Your task to perform on an android device: Open Android settings Image 0: 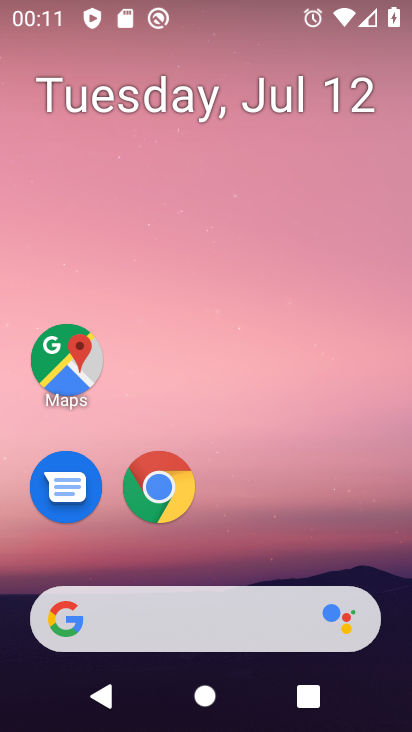
Step 0: drag from (374, 527) to (400, 131)
Your task to perform on an android device: Open Android settings Image 1: 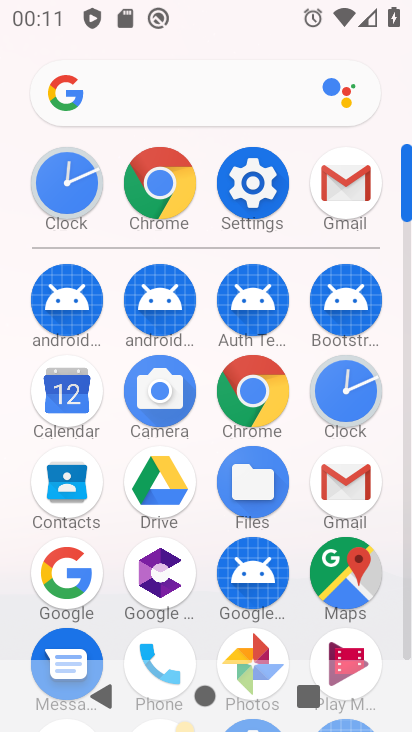
Step 1: click (263, 196)
Your task to perform on an android device: Open Android settings Image 2: 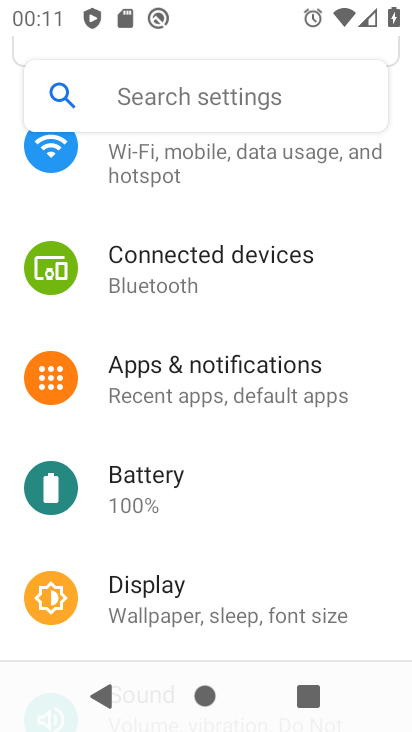
Step 2: drag from (376, 517) to (368, 416)
Your task to perform on an android device: Open Android settings Image 3: 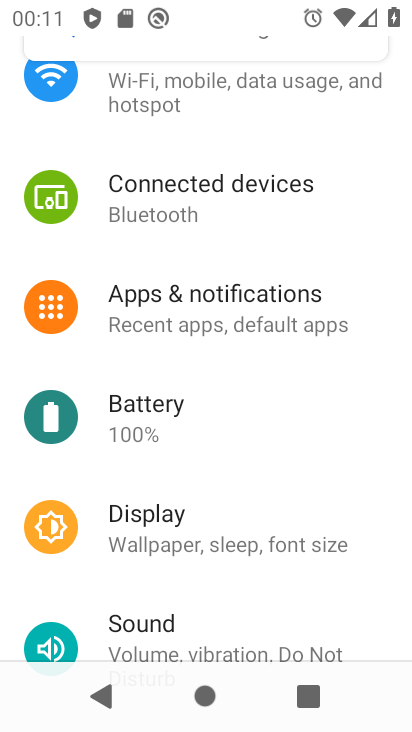
Step 3: drag from (377, 490) to (363, 413)
Your task to perform on an android device: Open Android settings Image 4: 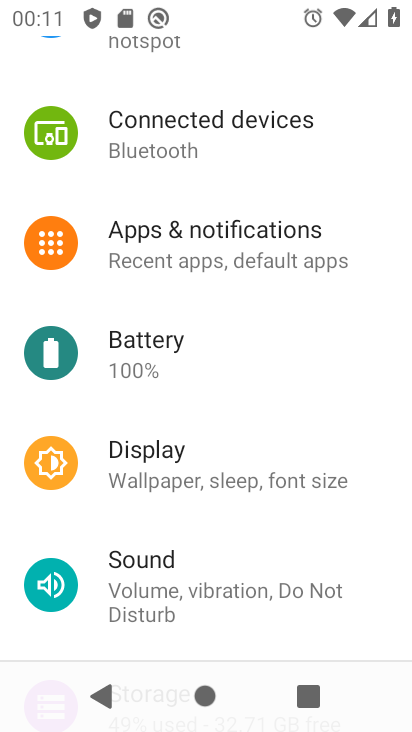
Step 4: drag from (380, 505) to (378, 439)
Your task to perform on an android device: Open Android settings Image 5: 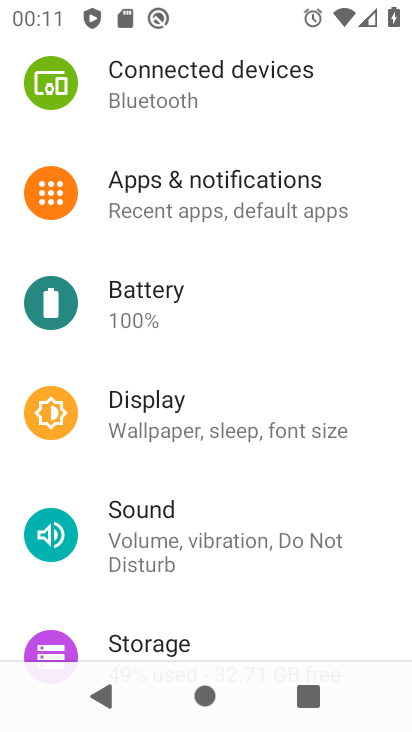
Step 5: drag from (382, 503) to (377, 423)
Your task to perform on an android device: Open Android settings Image 6: 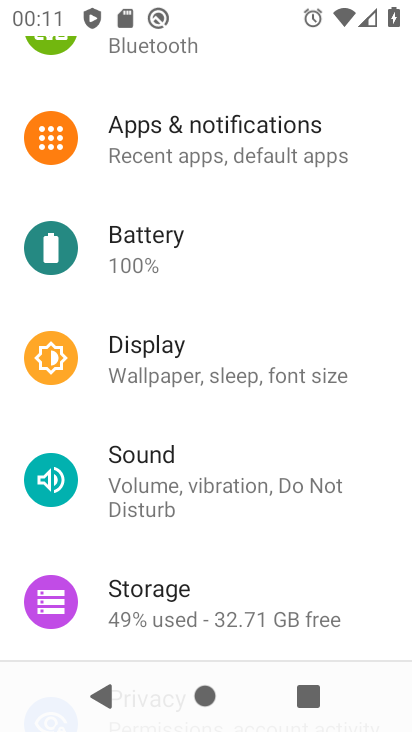
Step 6: drag from (363, 574) to (369, 494)
Your task to perform on an android device: Open Android settings Image 7: 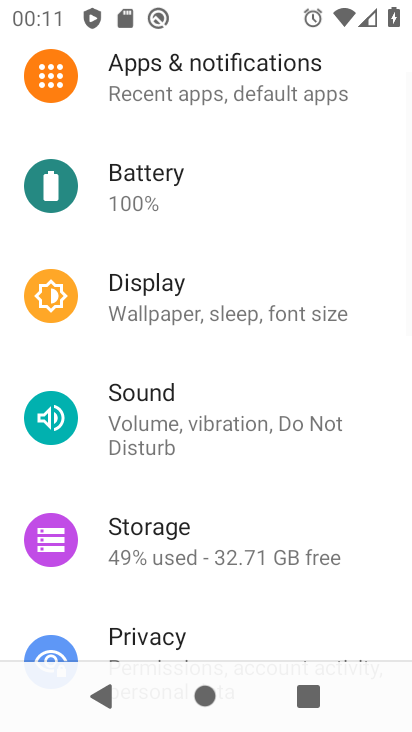
Step 7: drag from (369, 564) to (372, 386)
Your task to perform on an android device: Open Android settings Image 8: 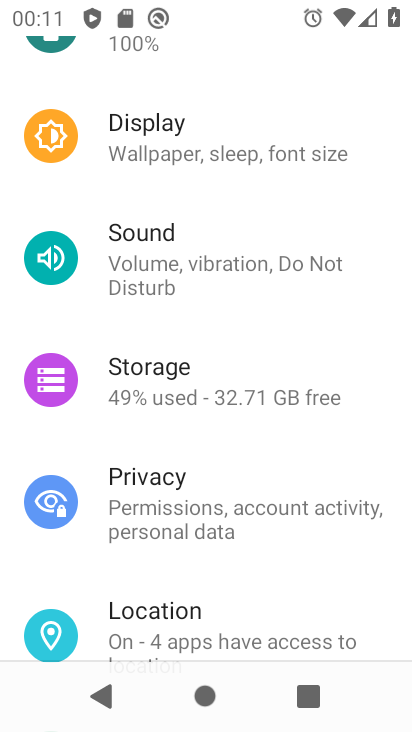
Step 8: drag from (379, 576) to (379, 456)
Your task to perform on an android device: Open Android settings Image 9: 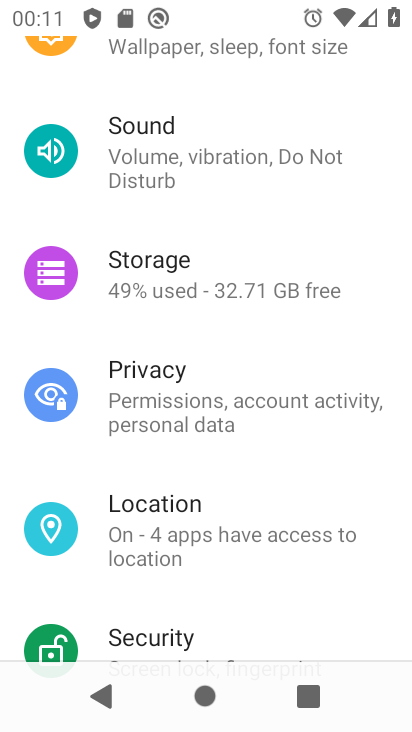
Step 9: drag from (383, 608) to (383, 499)
Your task to perform on an android device: Open Android settings Image 10: 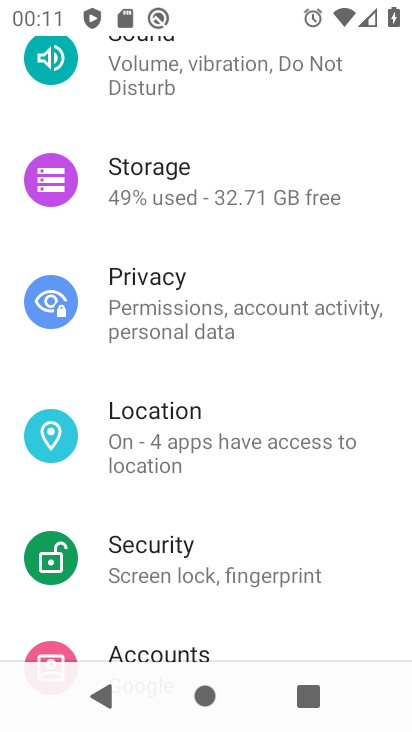
Step 10: drag from (369, 564) to (365, 425)
Your task to perform on an android device: Open Android settings Image 11: 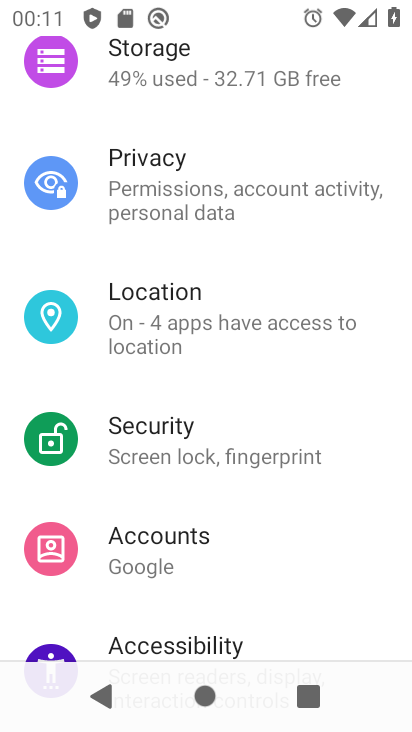
Step 11: drag from (352, 513) to (362, 350)
Your task to perform on an android device: Open Android settings Image 12: 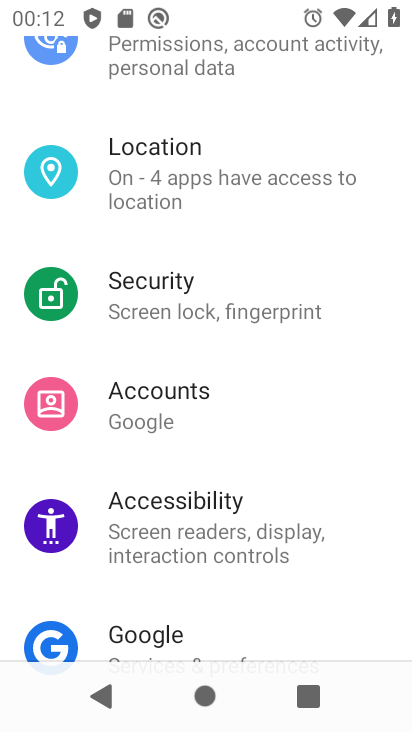
Step 12: drag from (365, 462) to (356, 393)
Your task to perform on an android device: Open Android settings Image 13: 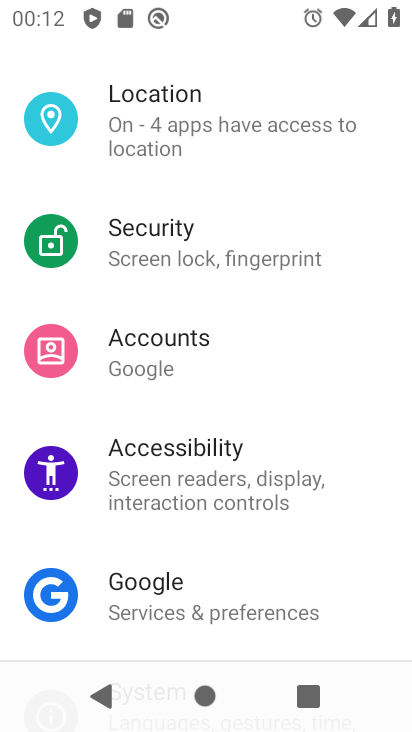
Step 13: drag from (379, 536) to (368, 427)
Your task to perform on an android device: Open Android settings Image 14: 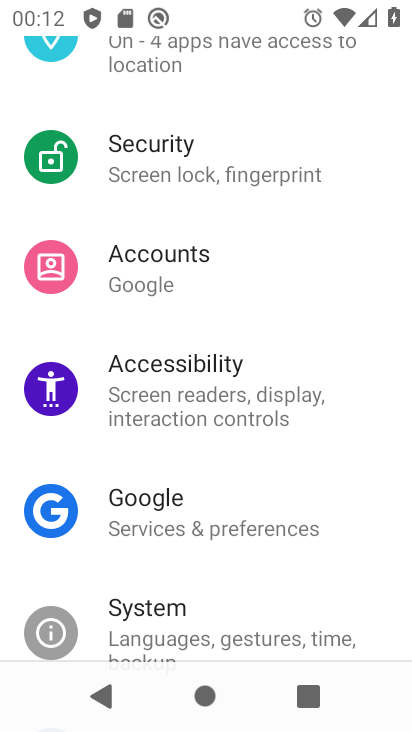
Step 14: drag from (369, 513) to (359, 391)
Your task to perform on an android device: Open Android settings Image 15: 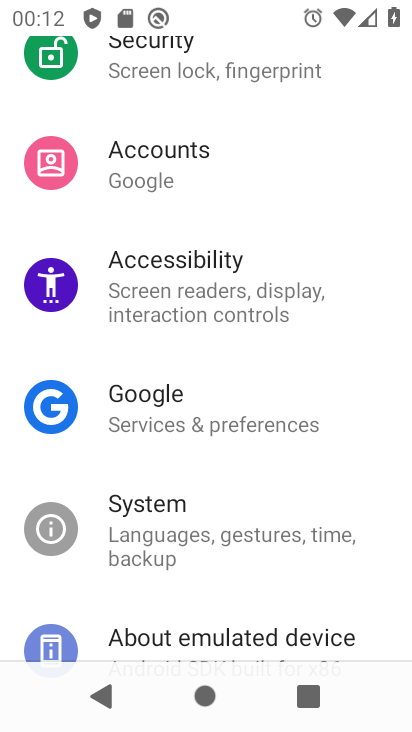
Step 15: drag from (354, 509) to (365, 343)
Your task to perform on an android device: Open Android settings Image 16: 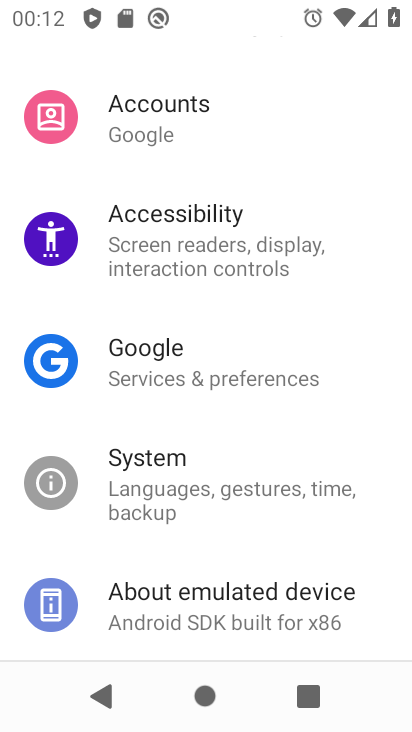
Step 16: click (275, 474)
Your task to perform on an android device: Open Android settings Image 17: 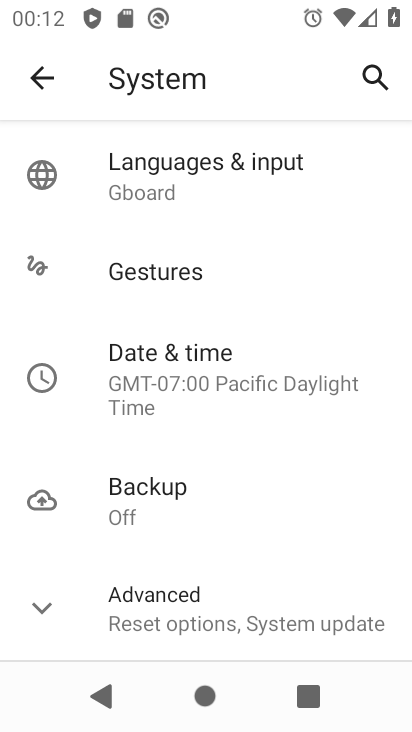
Step 17: click (275, 619)
Your task to perform on an android device: Open Android settings Image 18: 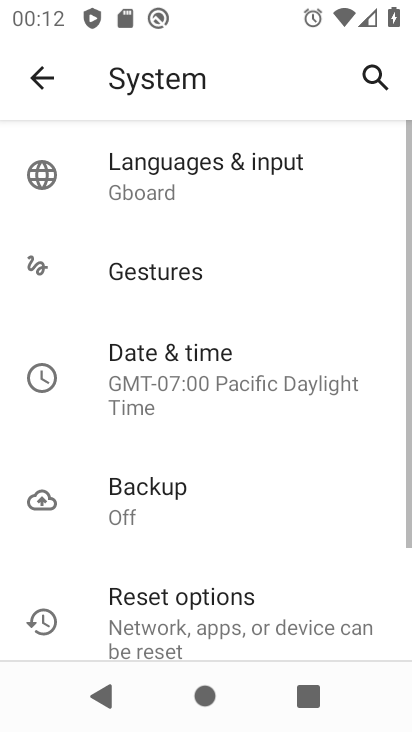
Step 18: task complete